Your task to perform on an android device: Open privacy settings Image 0: 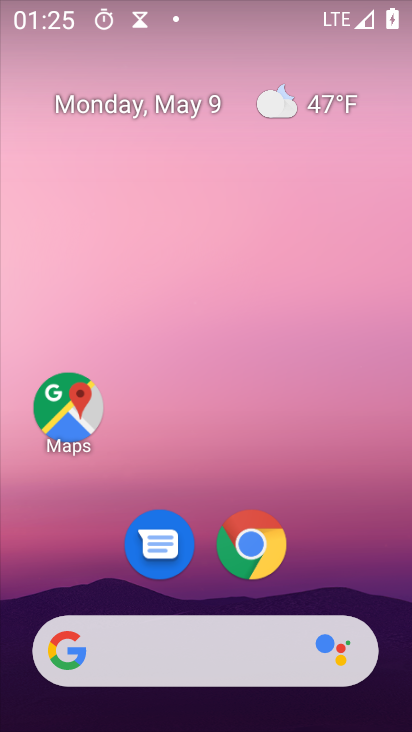
Step 0: drag from (368, 572) to (319, 92)
Your task to perform on an android device: Open privacy settings Image 1: 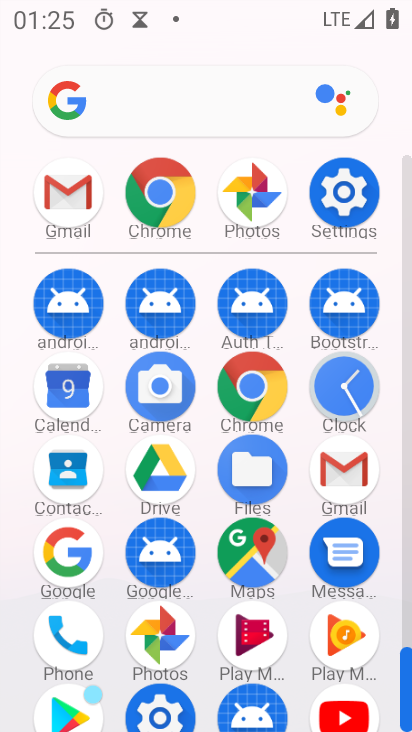
Step 1: click (334, 189)
Your task to perform on an android device: Open privacy settings Image 2: 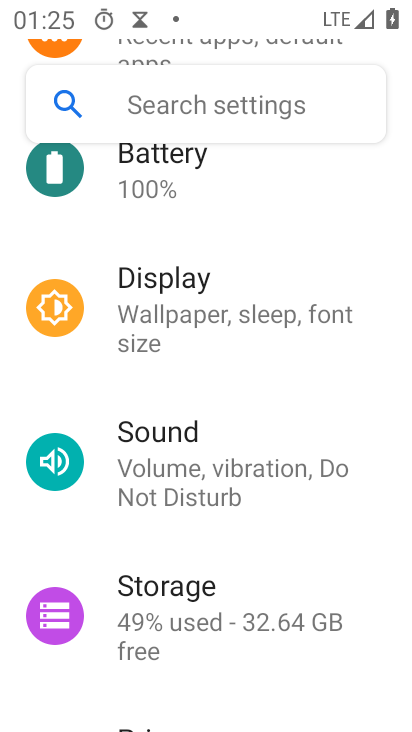
Step 2: drag from (216, 663) to (253, 185)
Your task to perform on an android device: Open privacy settings Image 3: 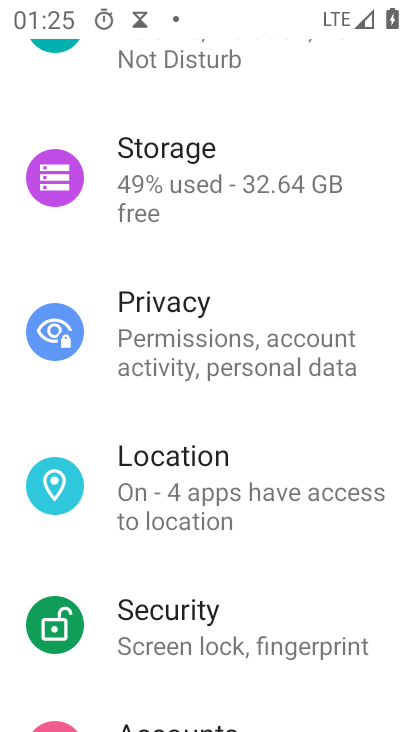
Step 3: click (213, 369)
Your task to perform on an android device: Open privacy settings Image 4: 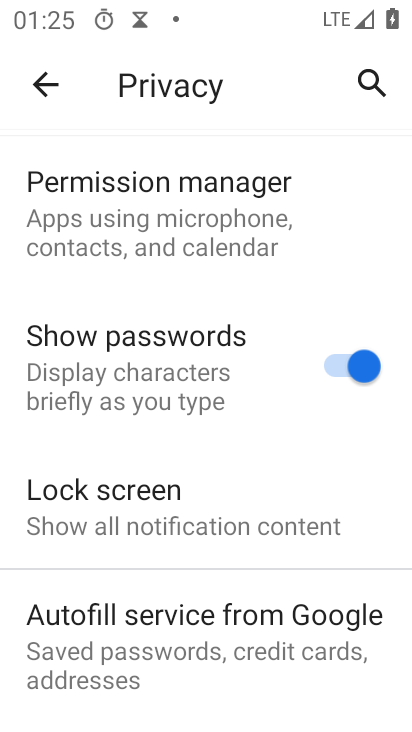
Step 4: task complete